Your task to perform on an android device: Go to Yahoo.com Image 0: 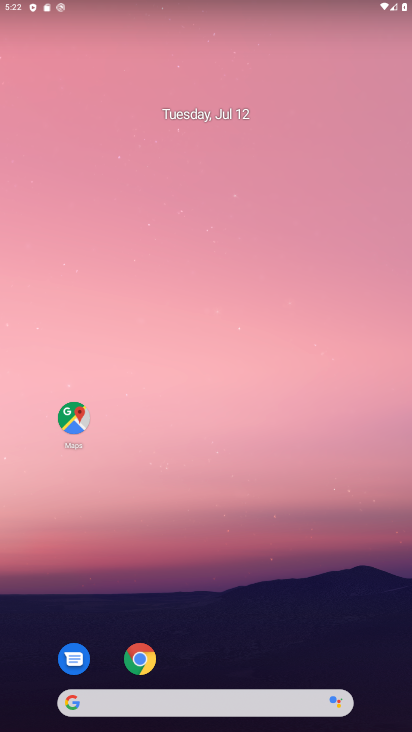
Step 0: click (145, 658)
Your task to perform on an android device: Go to Yahoo.com Image 1: 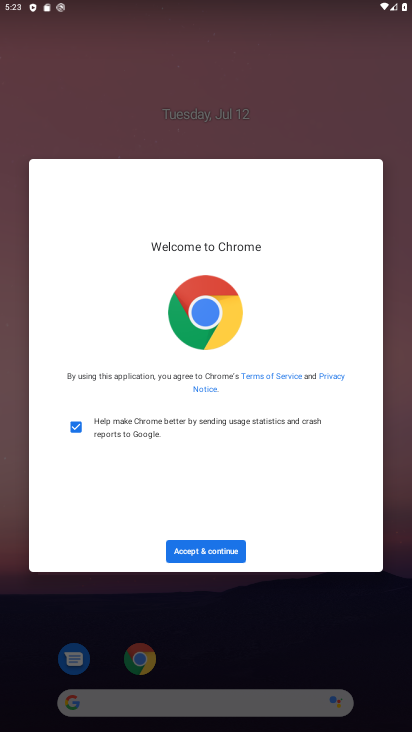
Step 1: click (211, 545)
Your task to perform on an android device: Go to Yahoo.com Image 2: 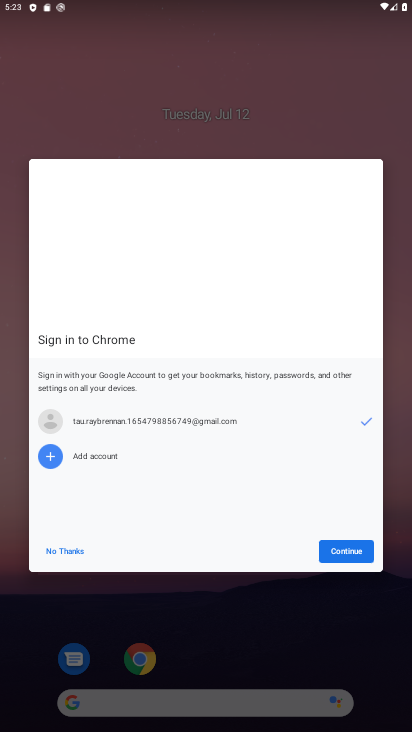
Step 2: click (355, 550)
Your task to perform on an android device: Go to Yahoo.com Image 3: 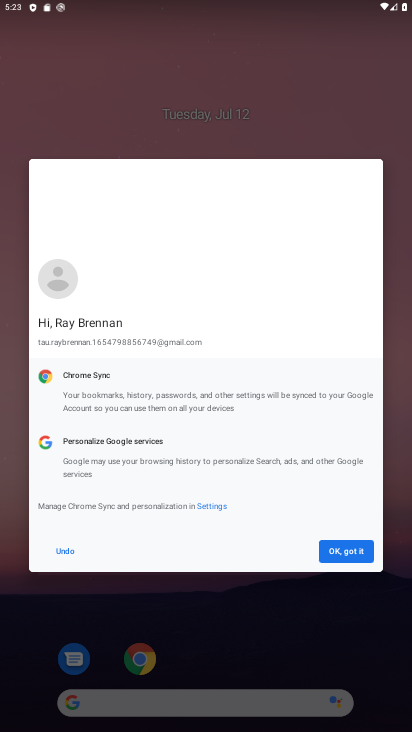
Step 3: click (356, 551)
Your task to perform on an android device: Go to Yahoo.com Image 4: 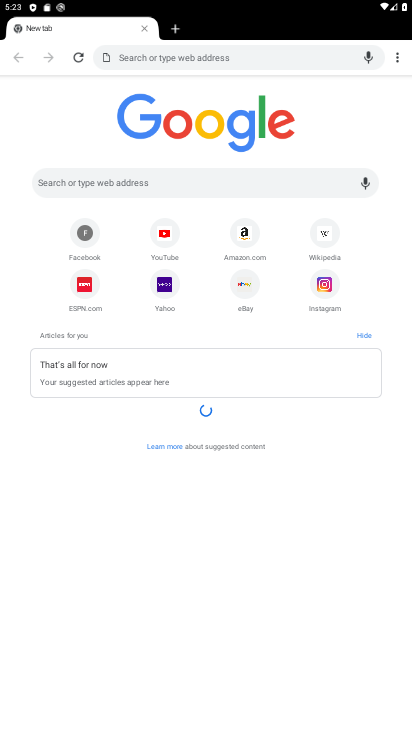
Step 4: click (167, 296)
Your task to perform on an android device: Go to Yahoo.com Image 5: 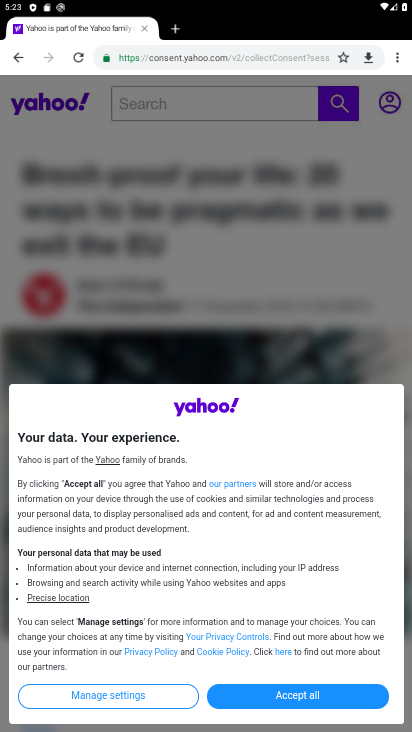
Step 5: task complete